Your task to perform on an android device: change text size in settings app Image 0: 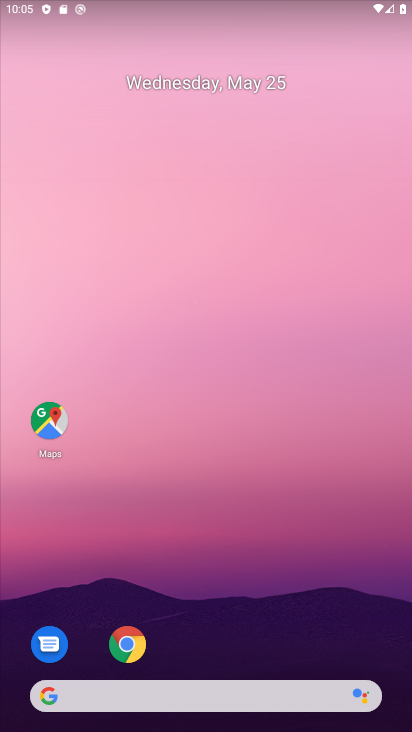
Step 0: drag from (204, 643) to (250, 149)
Your task to perform on an android device: change text size in settings app Image 1: 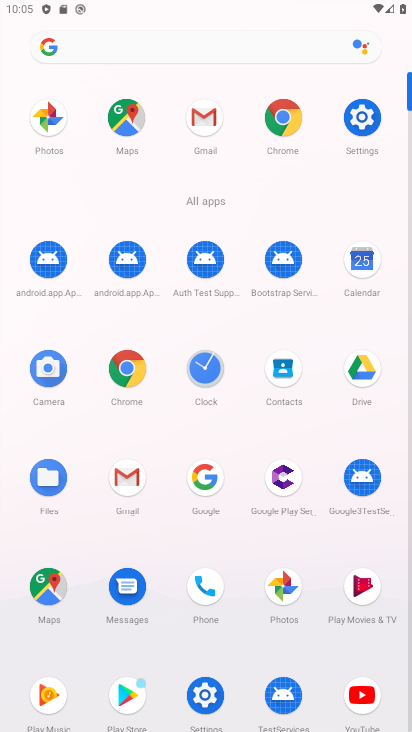
Step 1: click (357, 120)
Your task to perform on an android device: change text size in settings app Image 2: 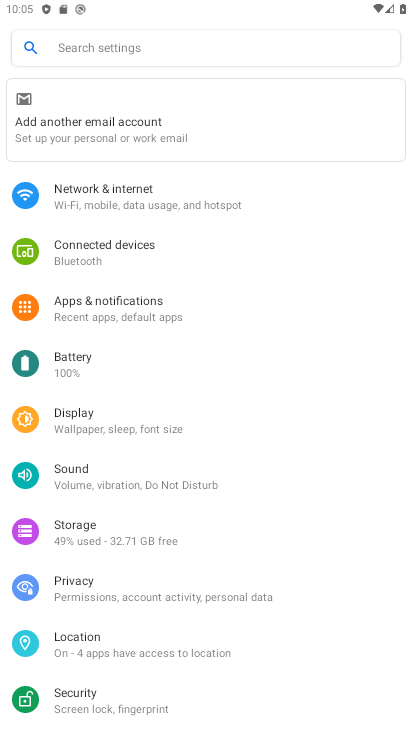
Step 2: click (108, 425)
Your task to perform on an android device: change text size in settings app Image 3: 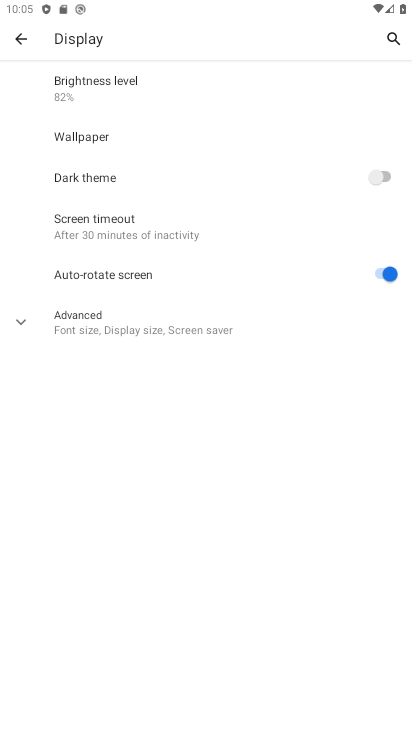
Step 3: drag from (92, 236) to (81, 344)
Your task to perform on an android device: change text size in settings app Image 4: 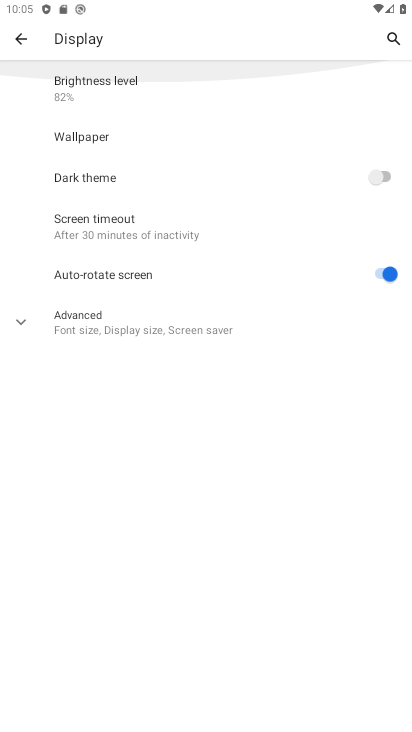
Step 4: click (51, 317)
Your task to perform on an android device: change text size in settings app Image 5: 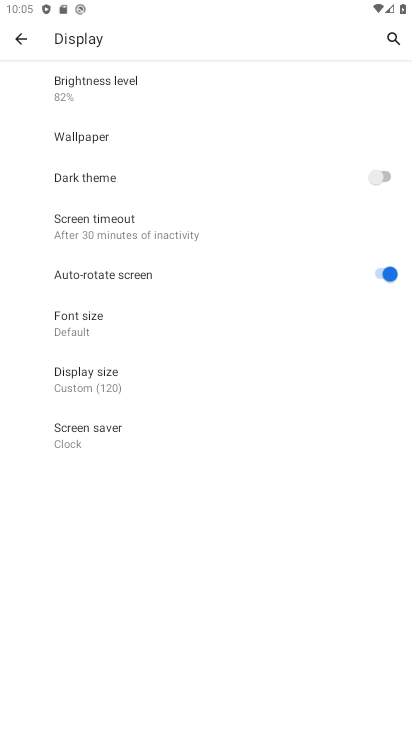
Step 5: click (86, 333)
Your task to perform on an android device: change text size in settings app Image 6: 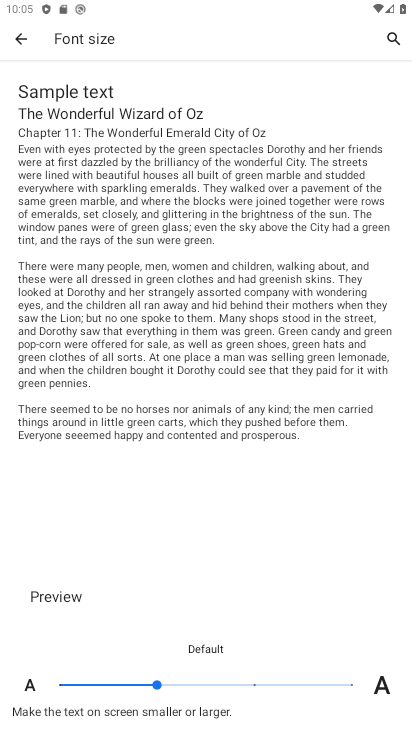
Step 6: task complete